Your task to perform on an android device: uninstall "DoorDash - Food Delivery" Image 0: 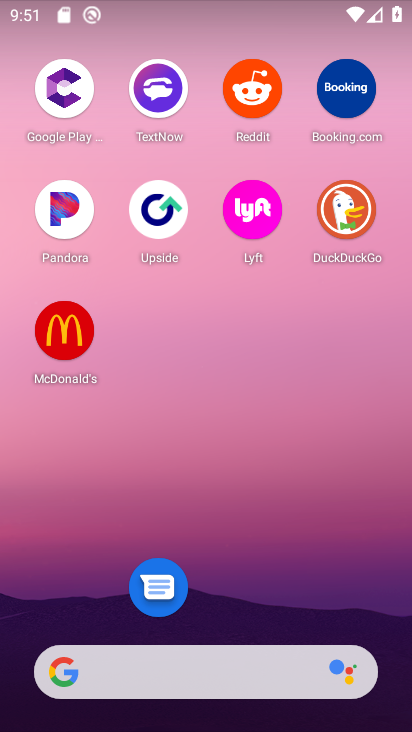
Step 0: drag from (214, 204) to (222, 46)
Your task to perform on an android device: uninstall "DoorDash - Food Delivery" Image 1: 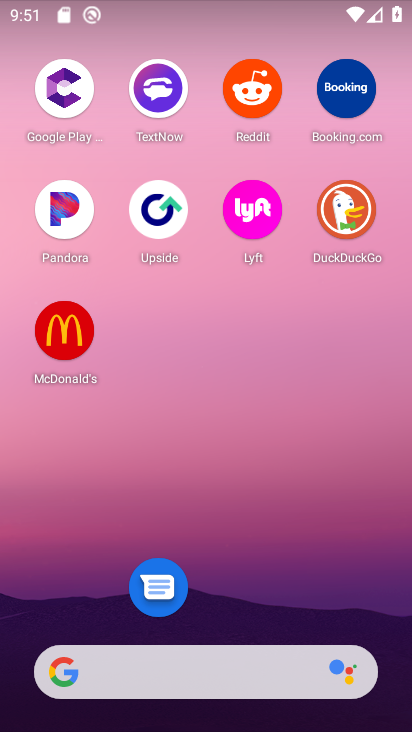
Step 1: click (222, 593)
Your task to perform on an android device: uninstall "DoorDash - Food Delivery" Image 2: 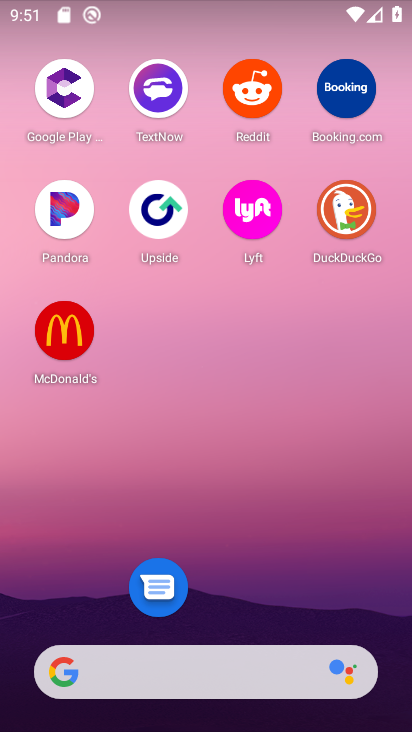
Step 2: drag from (220, 595) to (213, 343)
Your task to perform on an android device: uninstall "DoorDash - Food Delivery" Image 3: 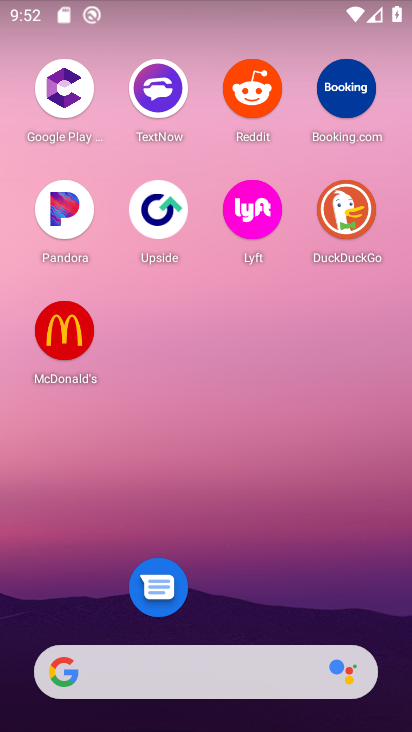
Step 3: drag from (206, 625) to (222, 144)
Your task to perform on an android device: uninstall "DoorDash - Food Delivery" Image 4: 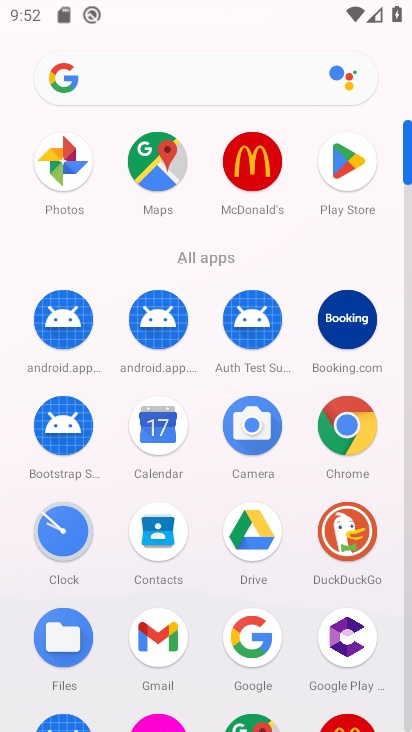
Step 4: click (341, 152)
Your task to perform on an android device: uninstall "DoorDash - Food Delivery" Image 5: 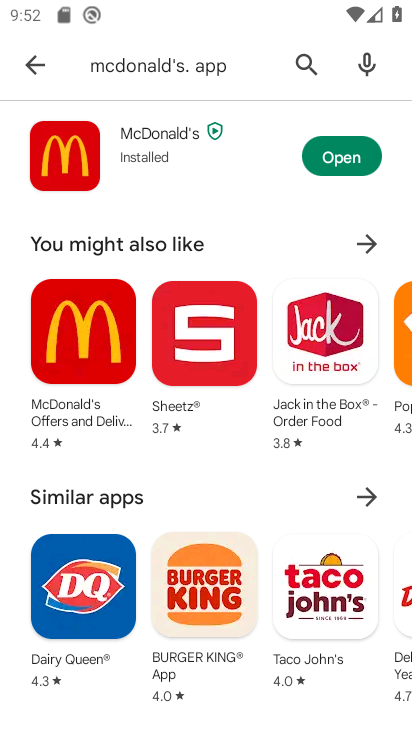
Step 5: click (47, 61)
Your task to perform on an android device: uninstall "DoorDash - Food Delivery" Image 6: 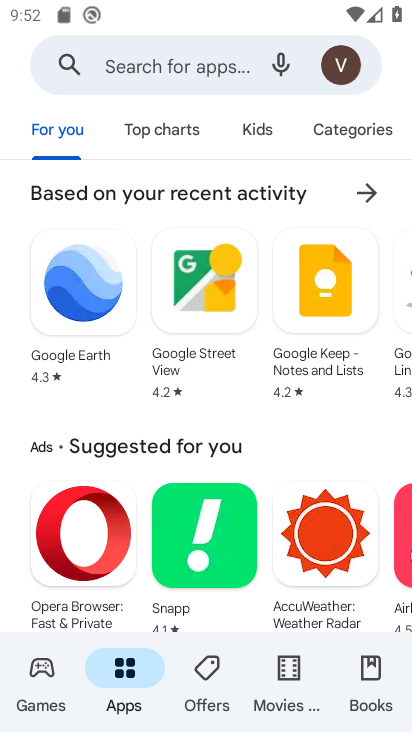
Step 6: click (124, 61)
Your task to perform on an android device: uninstall "DoorDash - Food Delivery" Image 7: 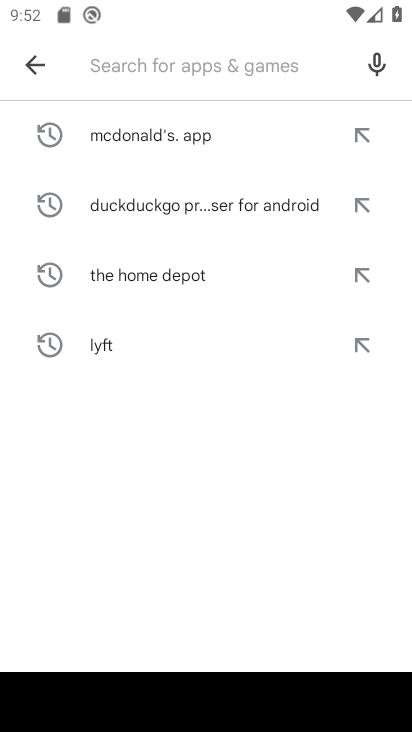
Step 7: type "DoorDash - Food Delivery""
Your task to perform on an android device: uninstall "DoorDash - Food Delivery" Image 8: 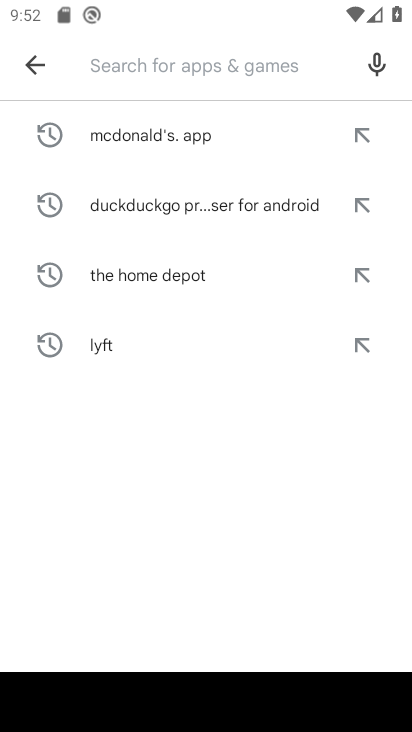
Step 8: type "DoorDash - Food Delivery""
Your task to perform on an android device: uninstall "DoorDash - Food Delivery" Image 9: 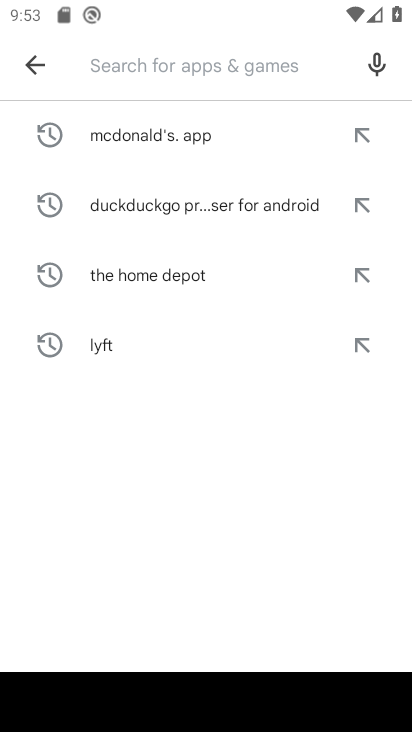
Step 9: task complete